Your task to perform on an android device: toggle notifications settings in the gmail app Image 0: 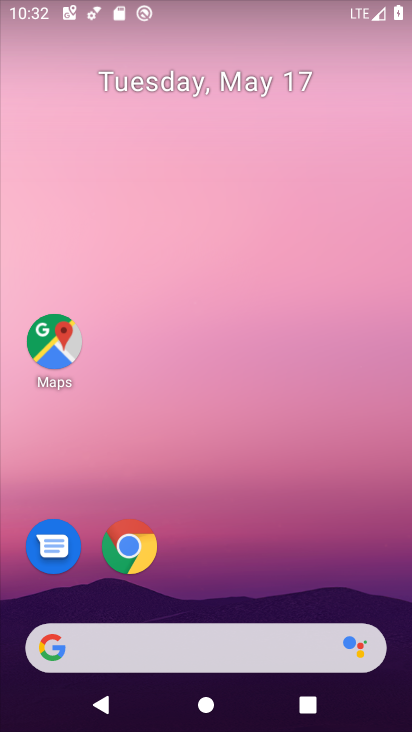
Step 0: drag from (208, 607) to (275, 91)
Your task to perform on an android device: toggle notifications settings in the gmail app Image 1: 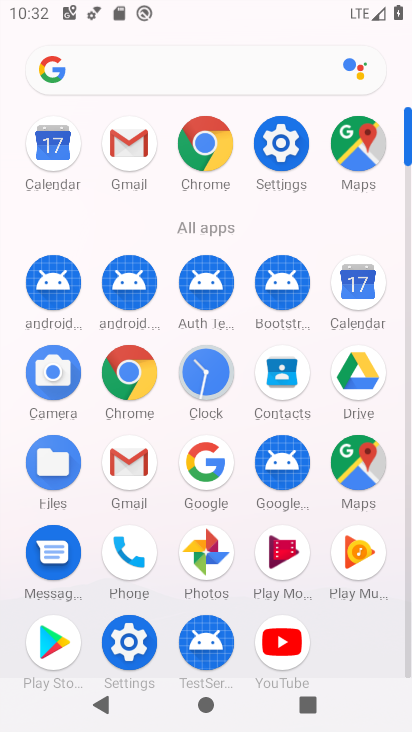
Step 1: click (128, 458)
Your task to perform on an android device: toggle notifications settings in the gmail app Image 2: 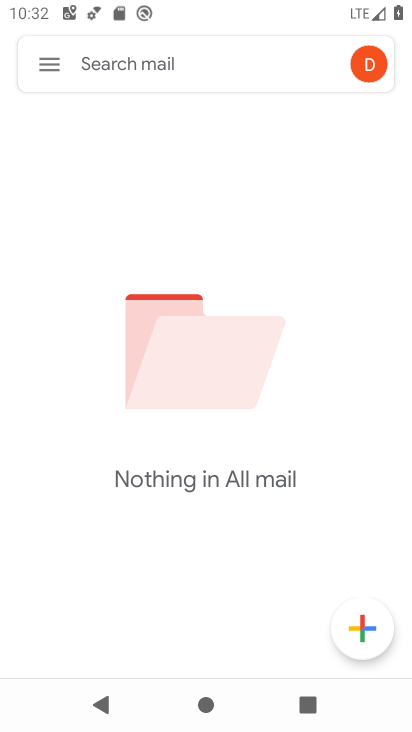
Step 2: click (51, 65)
Your task to perform on an android device: toggle notifications settings in the gmail app Image 3: 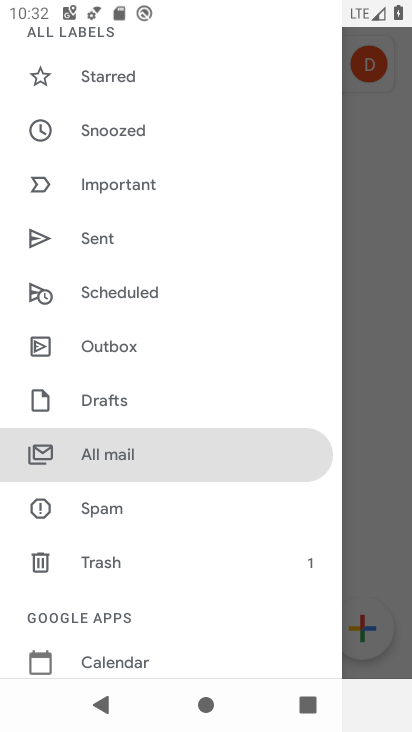
Step 3: drag from (119, 560) to (174, 246)
Your task to perform on an android device: toggle notifications settings in the gmail app Image 4: 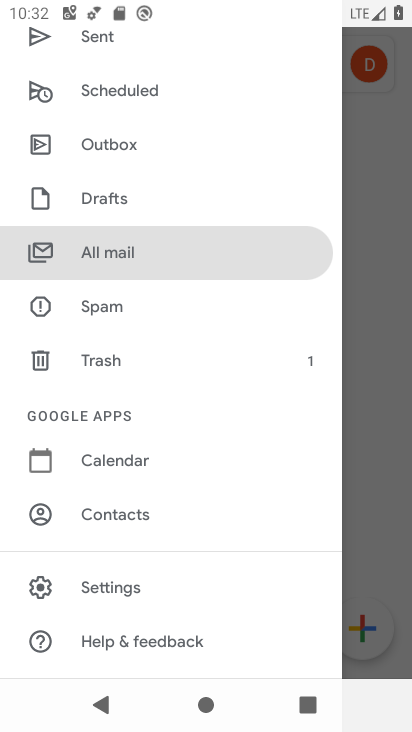
Step 4: click (133, 589)
Your task to perform on an android device: toggle notifications settings in the gmail app Image 5: 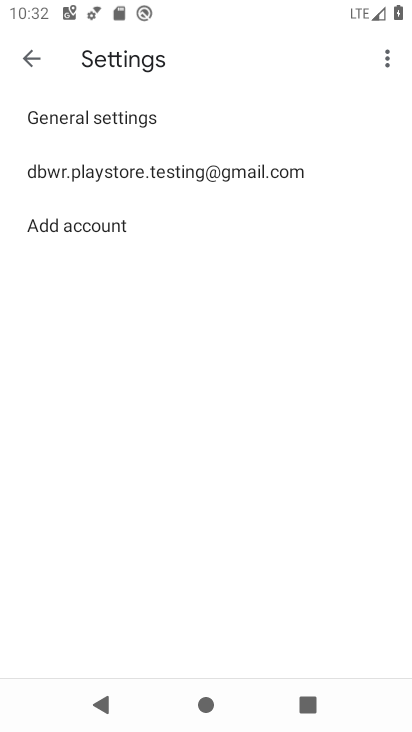
Step 5: click (86, 116)
Your task to perform on an android device: toggle notifications settings in the gmail app Image 6: 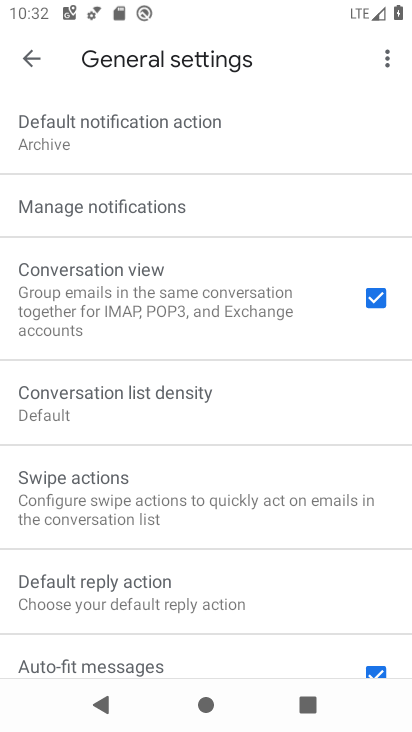
Step 6: click (100, 215)
Your task to perform on an android device: toggle notifications settings in the gmail app Image 7: 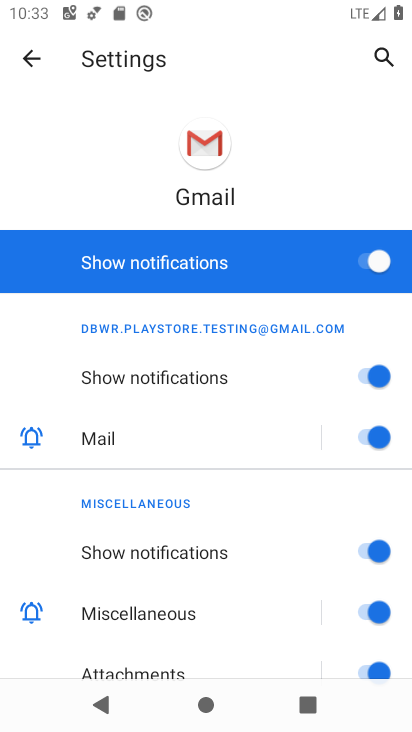
Step 7: click (333, 263)
Your task to perform on an android device: toggle notifications settings in the gmail app Image 8: 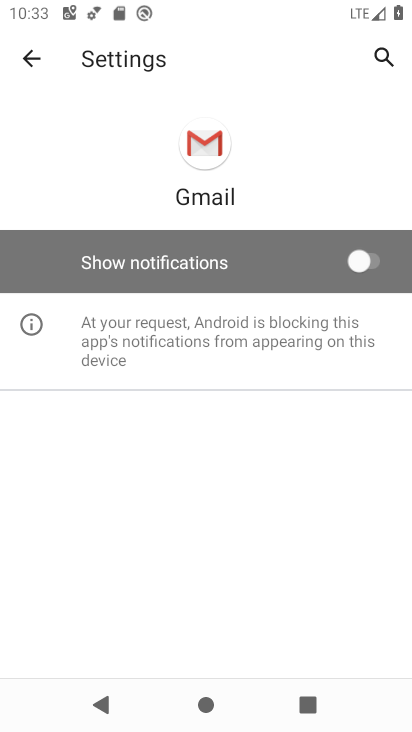
Step 8: task complete